Your task to perform on an android device: turn vacation reply on in the gmail app Image 0: 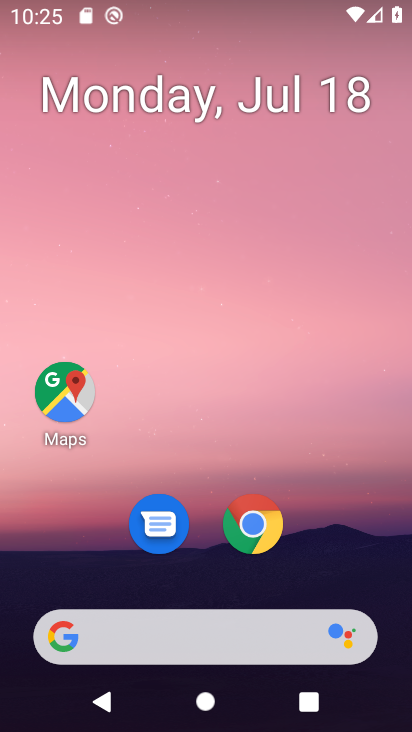
Step 0: drag from (205, 461) to (245, 0)
Your task to perform on an android device: turn vacation reply on in the gmail app Image 1: 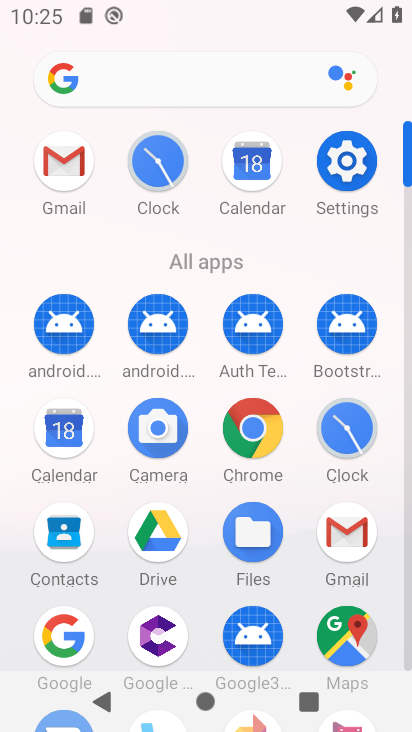
Step 1: click (71, 170)
Your task to perform on an android device: turn vacation reply on in the gmail app Image 2: 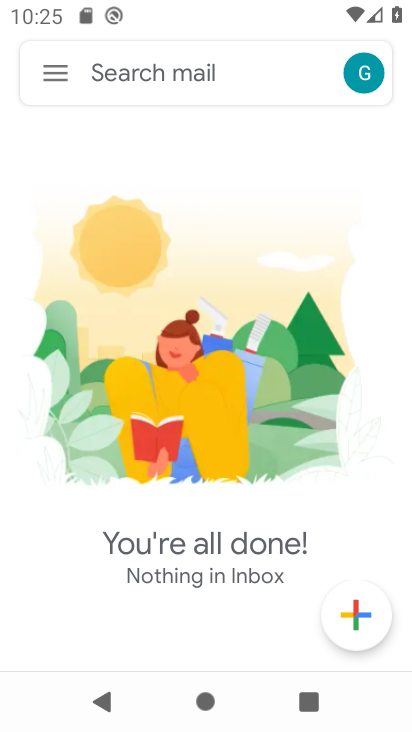
Step 2: click (60, 80)
Your task to perform on an android device: turn vacation reply on in the gmail app Image 3: 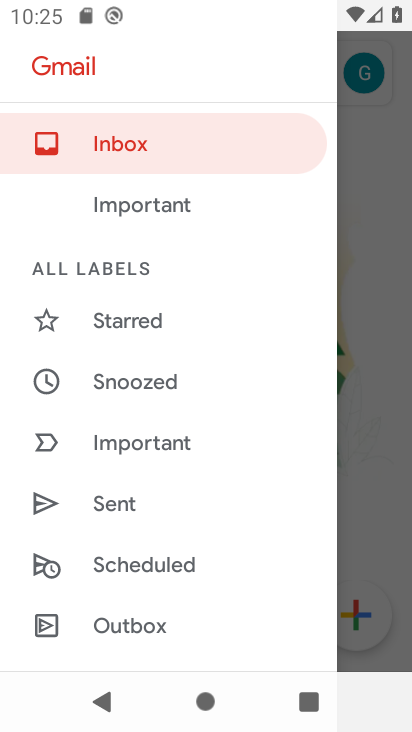
Step 3: drag from (178, 481) to (236, 1)
Your task to perform on an android device: turn vacation reply on in the gmail app Image 4: 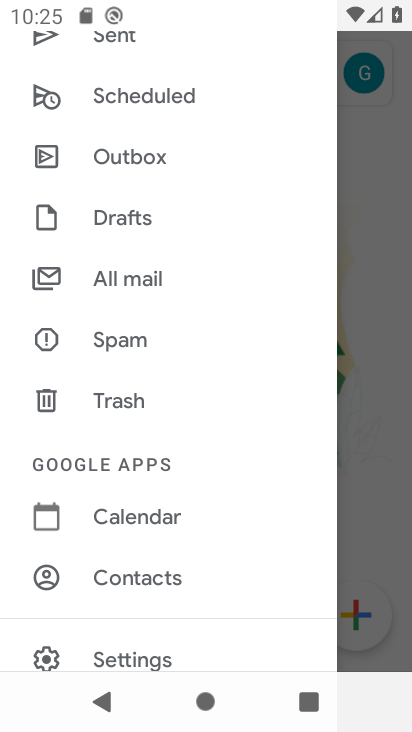
Step 4: drag from (209, 509) to (240, 238)
Your task to perform on an android device: turn vacation reply on in the gmail app Image 5: 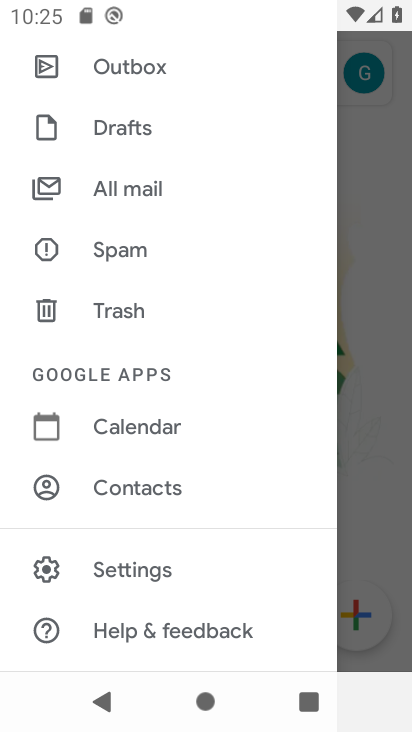
Step 5: click (151, 566)
Your task to perform on an android device: turn vacation reply on in the gmail app Image 6: 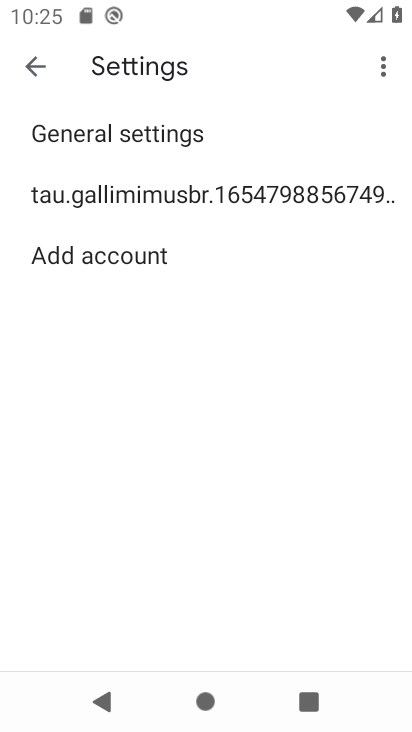
Step 6: click (259, 195)
Your task to perform on an android device: turn vacation reply on in the gmail app Image 7: 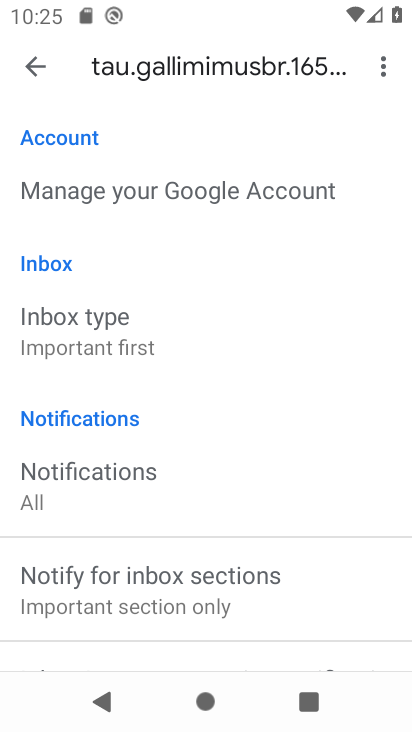
Step 7: drag from (210, 485) to (257, 131)
Your task to perform on an android device: turn vacation reply on in the gmail app Image 8: 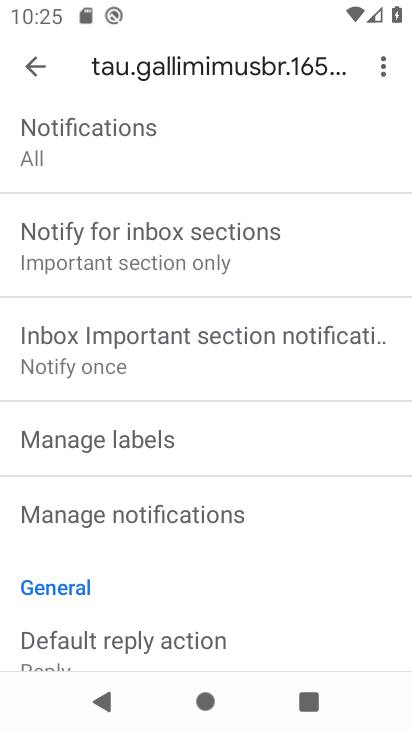
Step 8: drag from (228, 541) to (251, 154)
Your task to perform on an android device: turn vacation reply on in the gmail app Image 9: 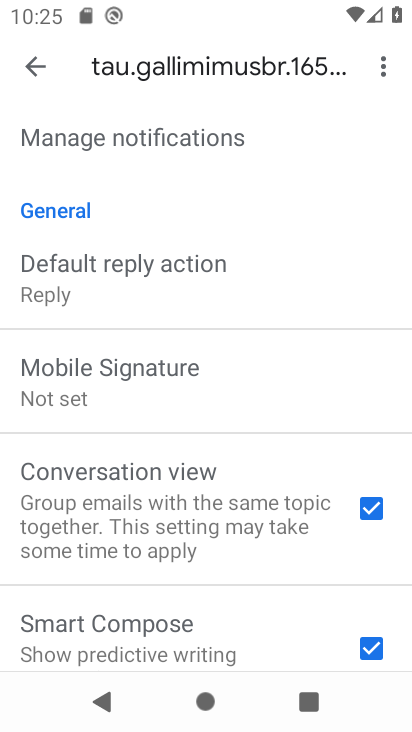
Step 9: drag from (237, 575) to (277, 150)
Your task to perform on an android device: turn vacation reply on in the gmail app Image 10: 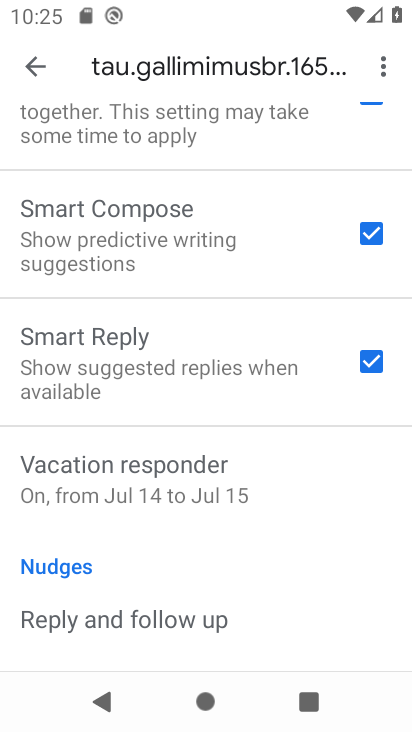
Step 10: click (219, 469)
Your task to perform on an android device: turn vacation reply on in the gmail app Image 11: 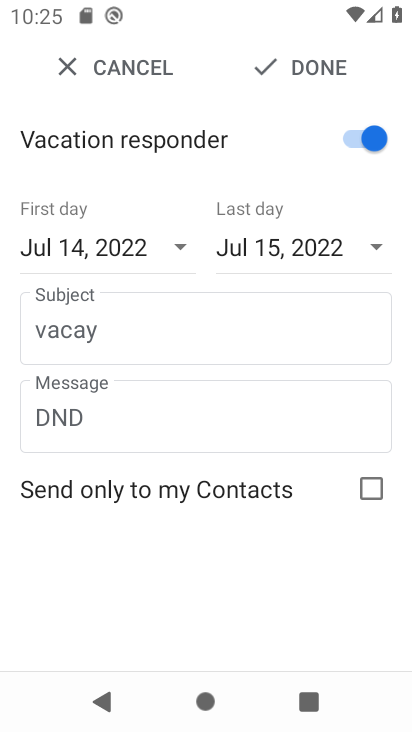
Step 11: task complete